Your task to perform on an android device: When is my next appointment? Image 0: 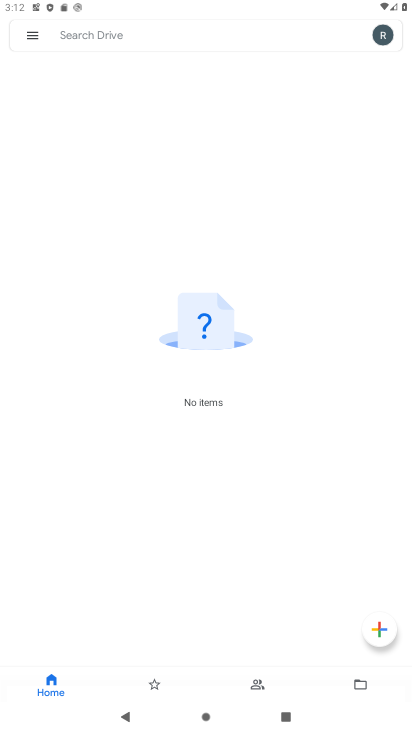
Step 0: press home button
Your task to perform on an android device: When is my next appointment? Image 1: 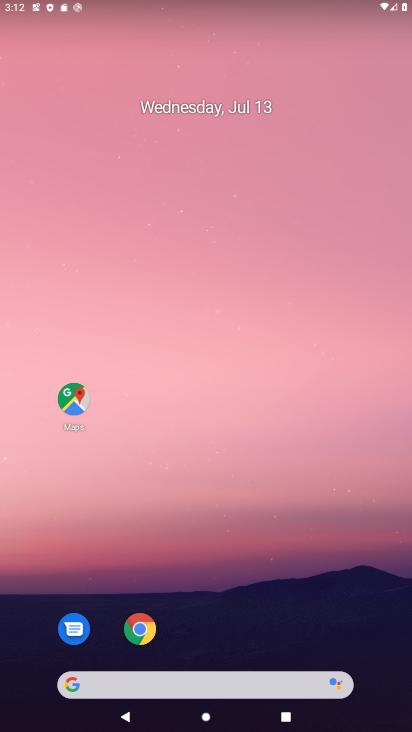
Step 1: press home button
Your task to perform on an android device: When is my next appointment? Image 2: 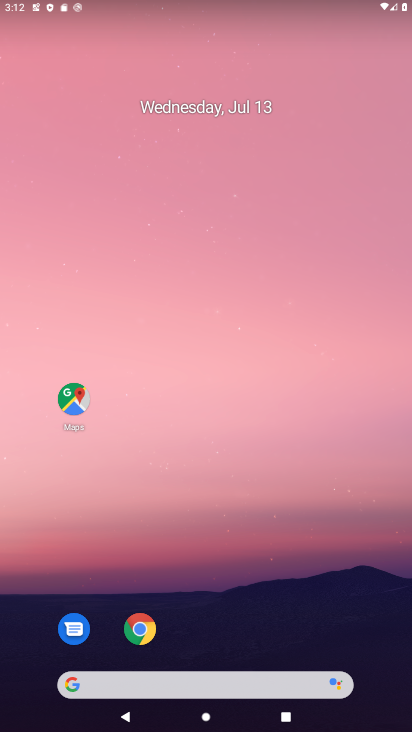
Step 2: drag from (375, 597) to (219, 43)
Your task to perform on an android device: When is my next appointment? Image 3: 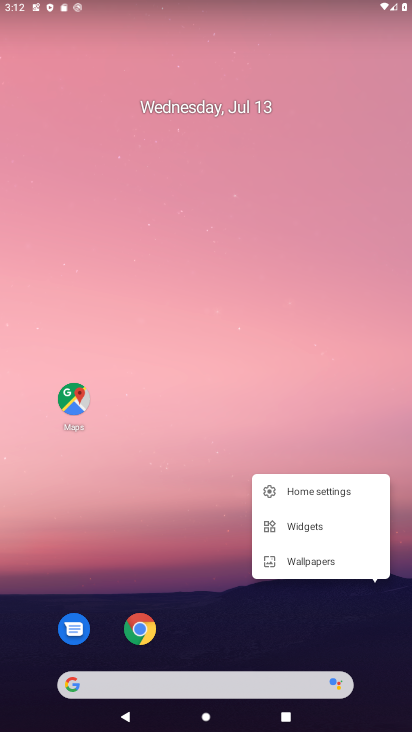
Step 3: drag from (176, 565) to (180, 2)
Your task to perform on an android device: When is my next appointment? Image 4: 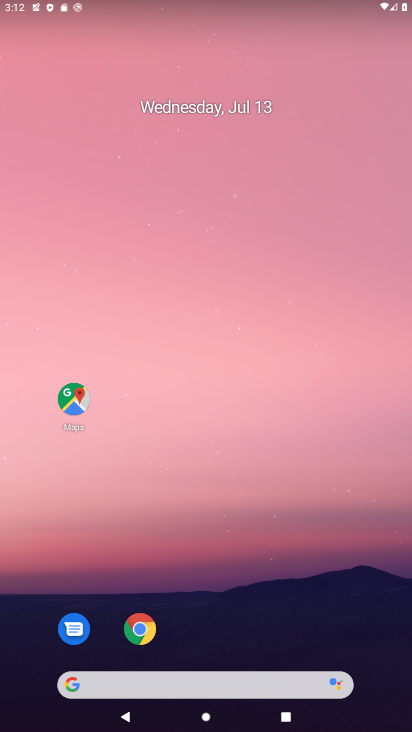
Step 4: drag from (323, 614) to (261, 84)
Your task to perform on an android device: When is my next appointment? Image 5: 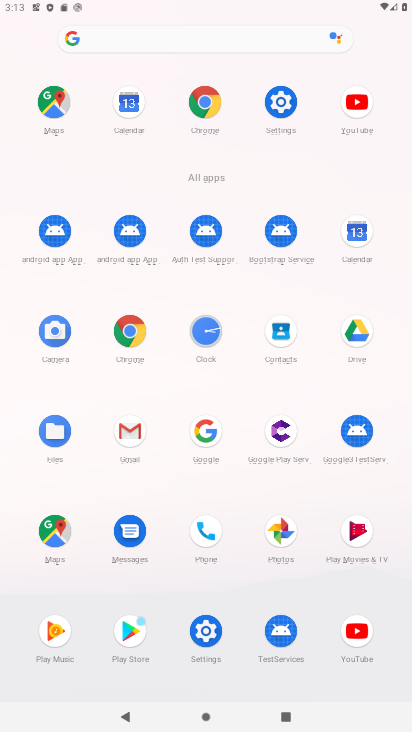
Step 5: click (355, 232)
Your task to perform on an android device: When is my next appointment? Image 6: 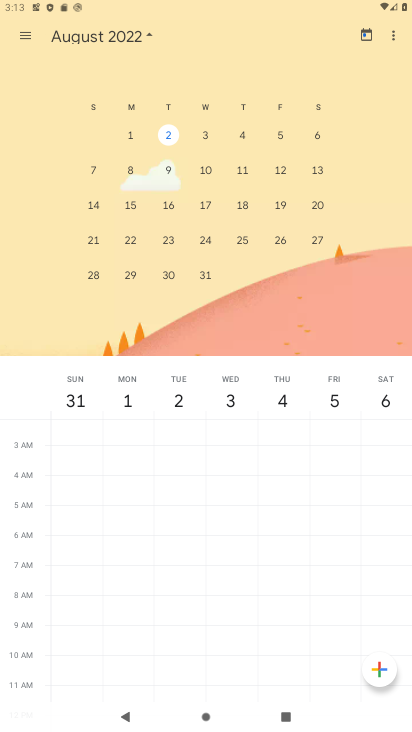
Step 6: click (23, 43)
Your task to perform on an android device: When is my next appointment? Image 7: 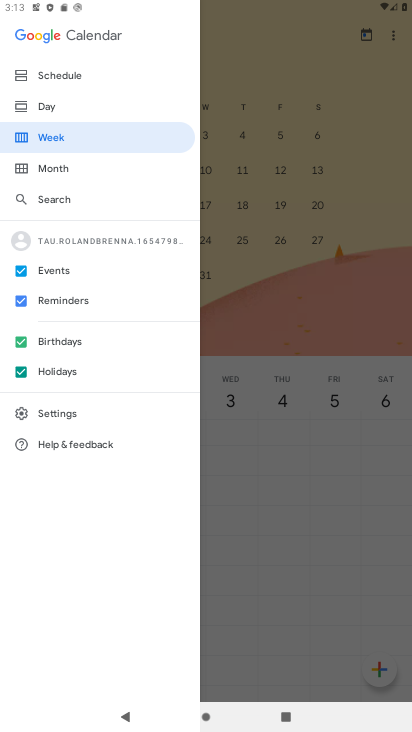
Step 7: click (56, 73)
Your task to perform on an android device: When is my next appointment? Image 8: 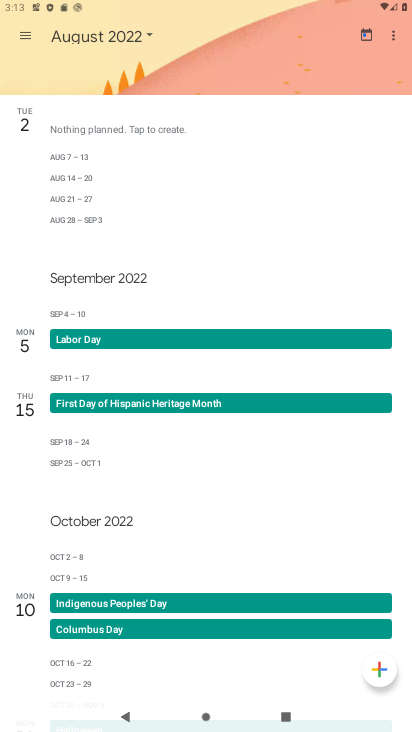
Step 8: task complete